Your task to perform on an android device: set the stopwatch Image 0: 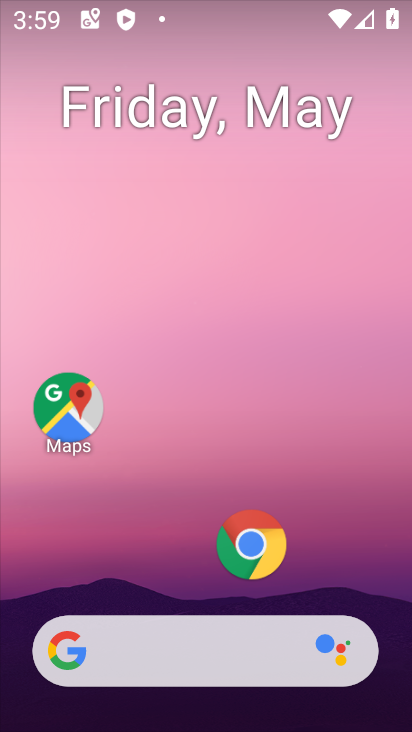
Step 0: drag from (159, 597) to (184, 335)
Your task to perform on an android device: set the stopwatch Image 1: 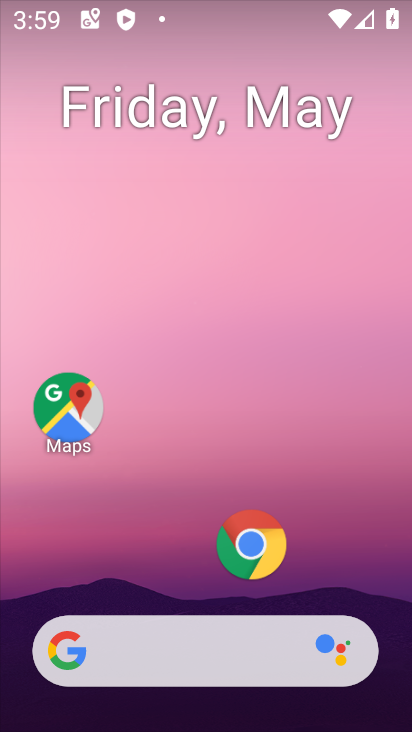
Step 1: drag from (192, 585) to (191, 179)
Your task to perform on an android device: set the stopwatch Image 2: 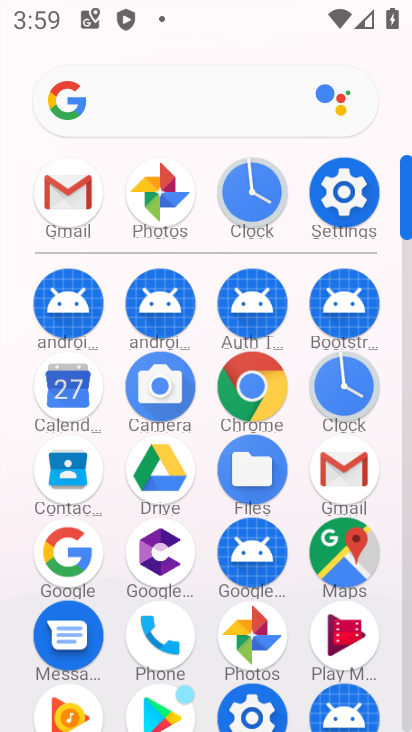
Step 2: click (237, 220)
Your task to perform on an android device: set the stopwatch Image 3: 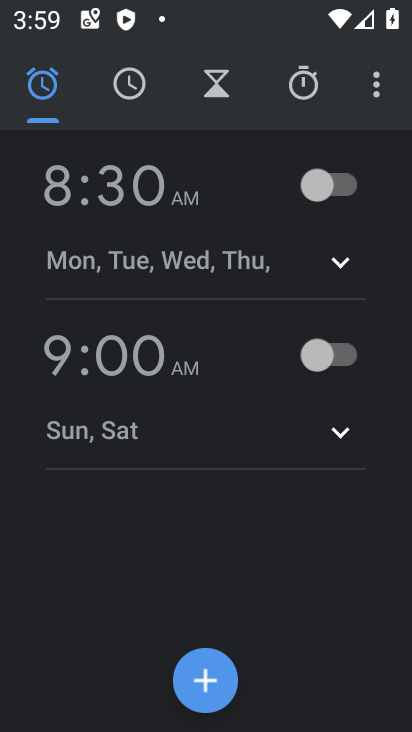
Step 3: click (316, 96)
Your task to perform on an android device: set the stopwatch Image 4: 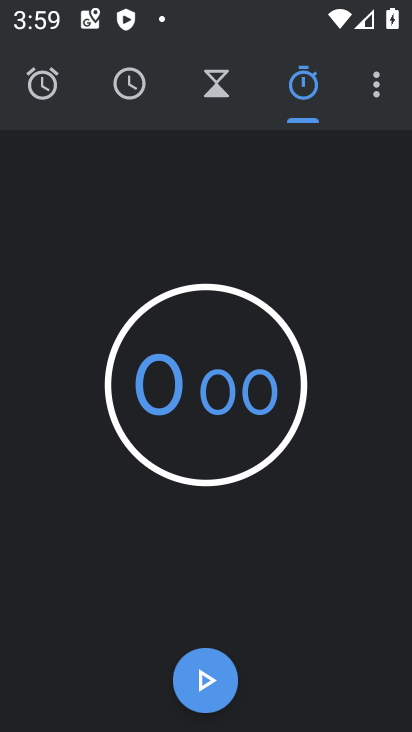
Step 4: task complete